Your task to perform on an android device: Search for Mexican restaurants on Maps Image 0: 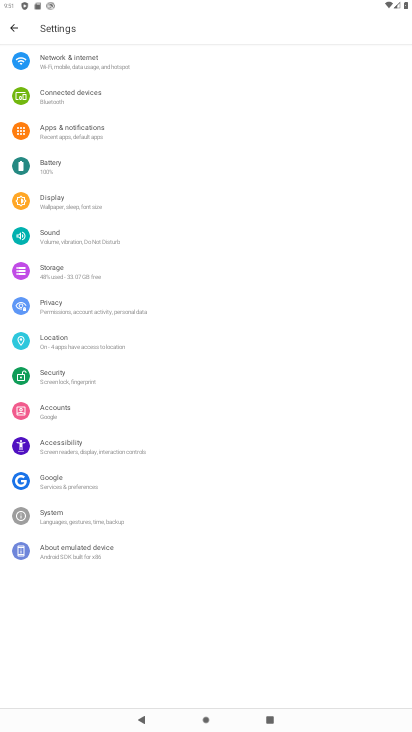
Step 0: press home button
Your task to perform on an android device: Search for Mexican restaurants on Maps Image 1: 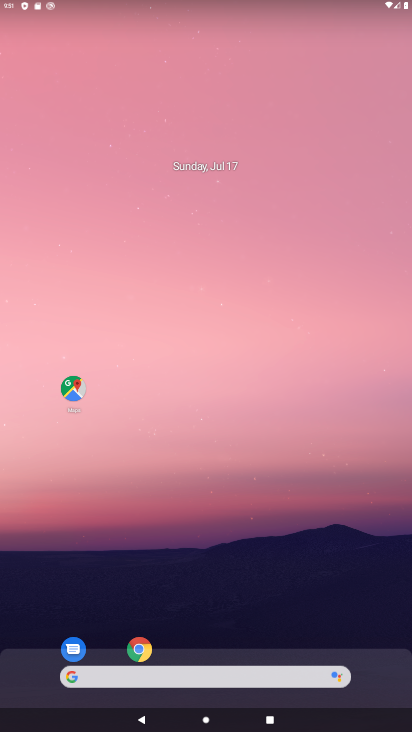
Step 1: drag from (232, 653) to (256, 364)
Your task to perform on an android device: Search for Mexican restaurants on Maps Image 2: 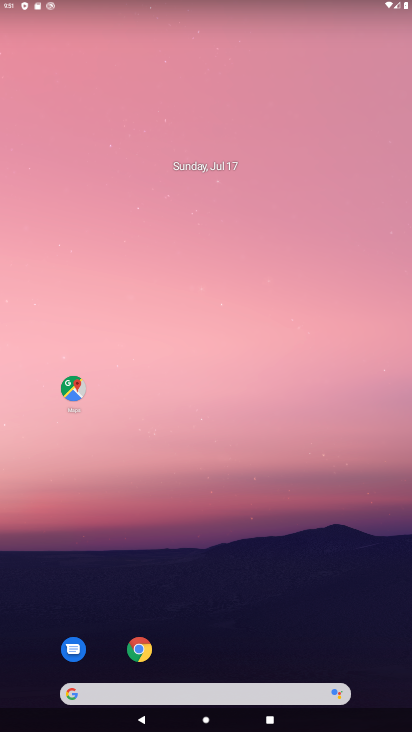
Step 2: drag from (158, 622) to (184, 189)
Your task to perform on an android device: Search for Mexican restaurants on Maps Image 3: 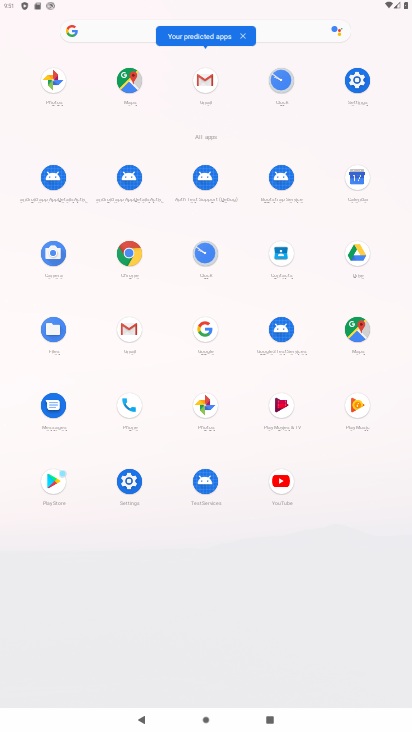
Step 3: click (360, 322)
Your task to perform on an android device: Search for Mexican restaurants on Maps Image 4: 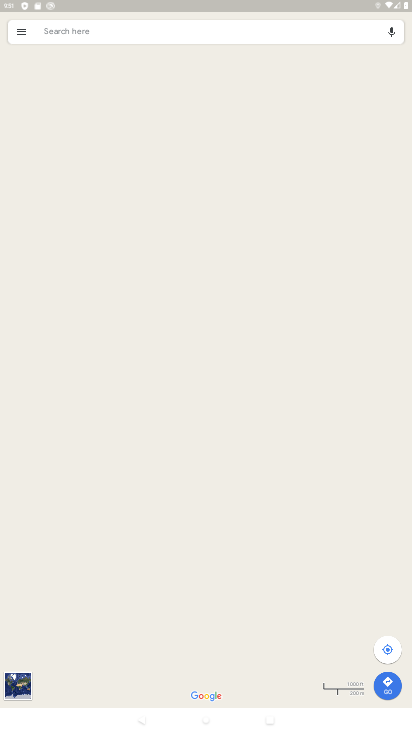
Step 4: click (112, 33)
Your task to perform on an android device: Search for Mexican restaurants on Maps Image 5: 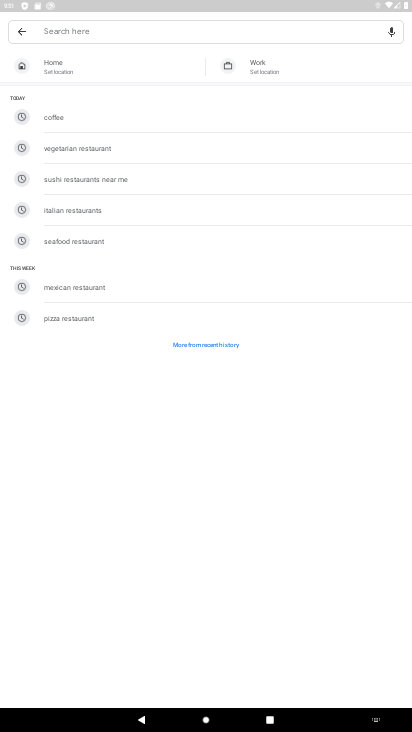
Step 5: type "Mexican restaurants"
Your task to perform on an android device: Search for Mexican restaurants on Maps Image 6: 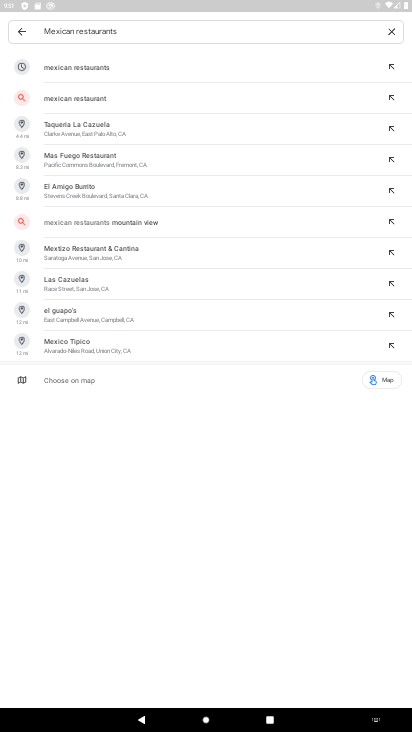
Step 6: click (114, 71)
Your task to perform on an android device: Search for Mexican restaurants on Maps Image 7: 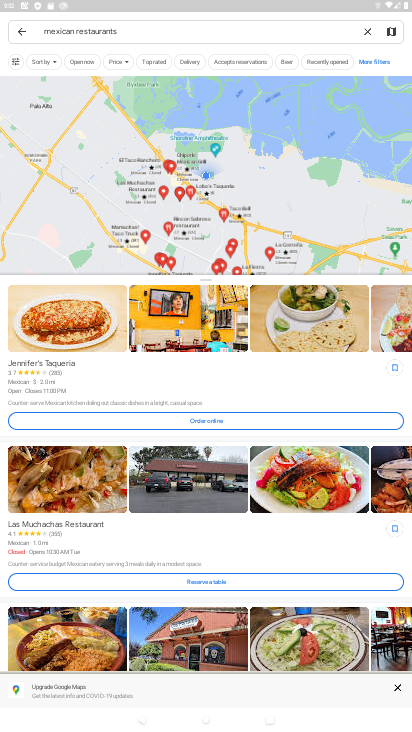
Step 7: task complete